Your task to perform on an android device: Find coffee shops on Maps Image 0: 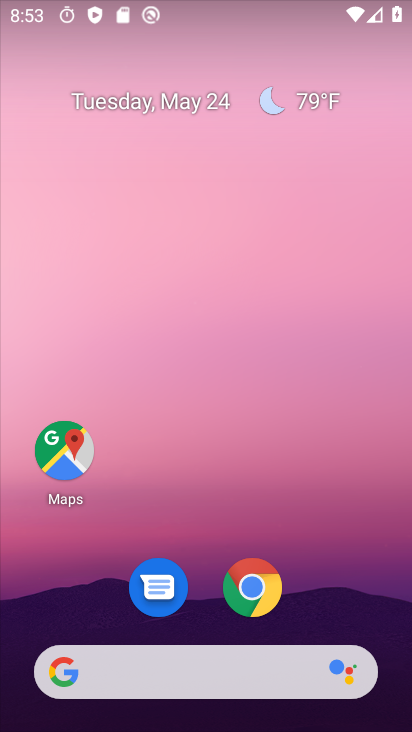
Step 0: click (60, 450)
Your task to perform on an android device: Find coffee shops on Maps Image 1: 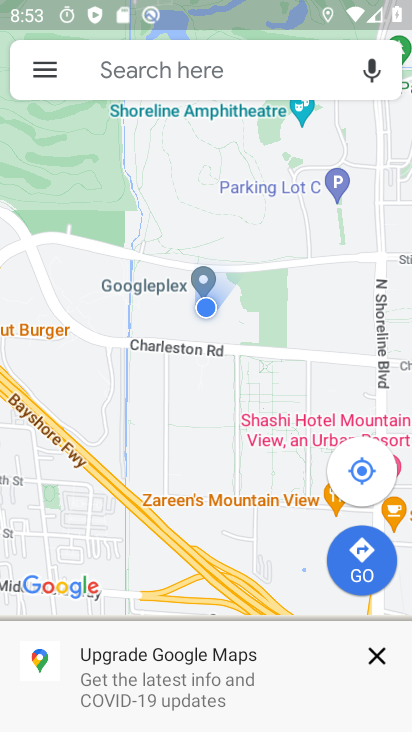
Step 1: click (183, 75)
Your task to perform on an android device: Find coffee shops on Maps Image 2: 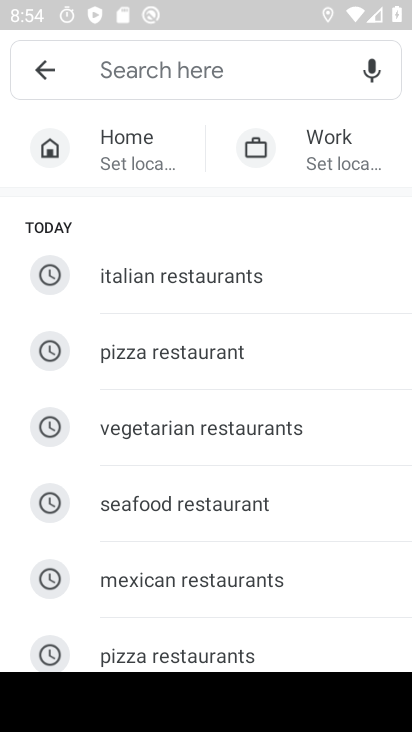
Step 2: type "coffee shops"
Your task to perform on an android device: Find coffee shops on Maps Image 3: 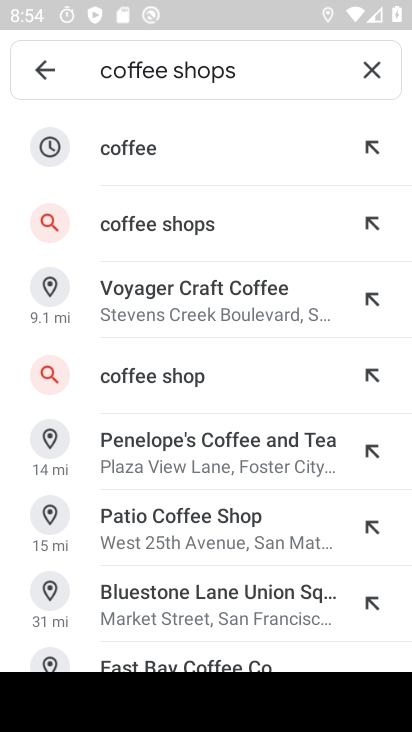
Step 3: click (198, 225)
Your task to perform on an android device: Find coffee shops on Maps Image 4: 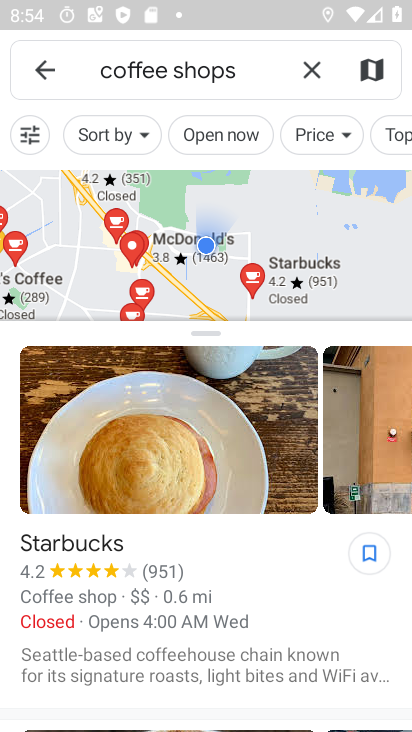
Step 4: task complete